Your task to perform on an android device: Open Yahoo.com Image 0: 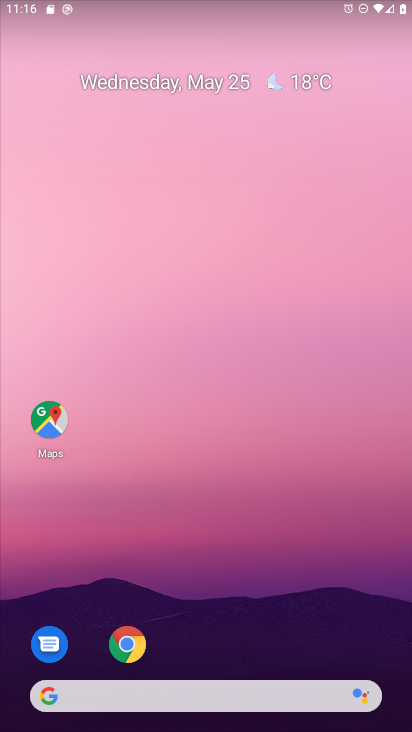
Step 0: click (125, 640)
Your task to perform on an android device: Open Yahoo.com Image 1: 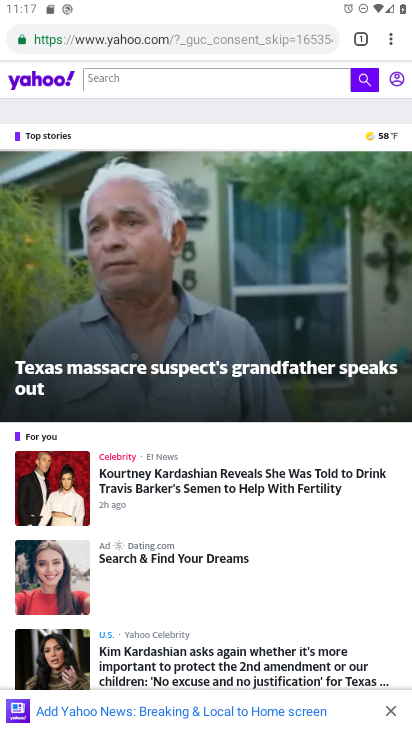
Step 1: task complete